Your task to perform on an android device: Check the weather Image 0: 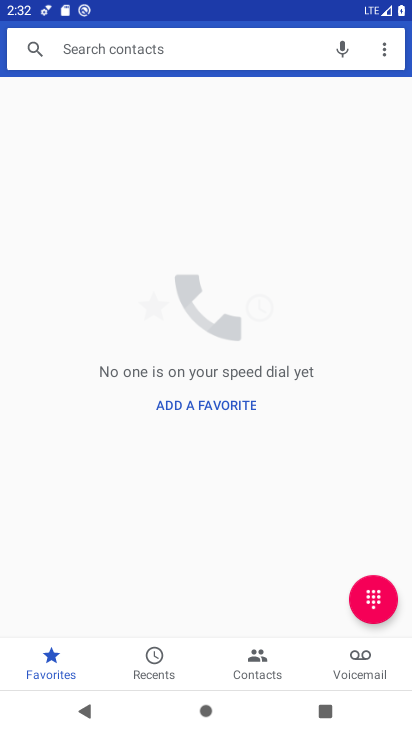
Step 0: press home button
Your task to perform on an android device: Check the weather Image 1: 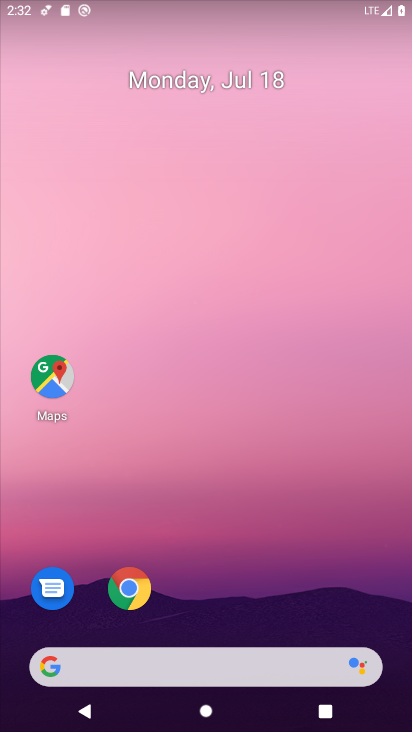
Step 1: click (127, 588)
Your task to perform on an android device: Check the weather Image 2: 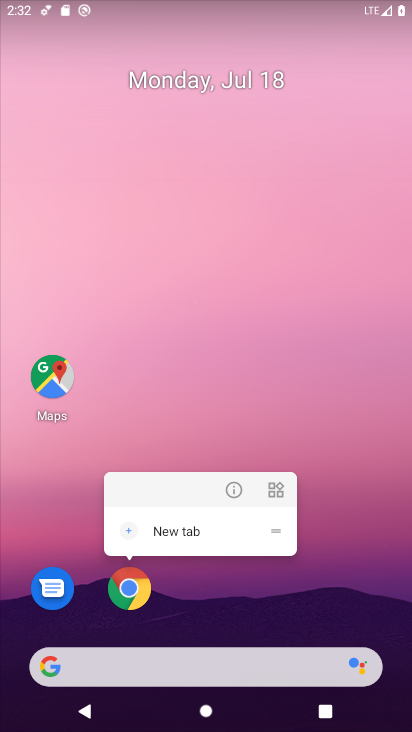
Step 2: click (127, 588)
Your task to perform on an android device: Check the weather Image 3: 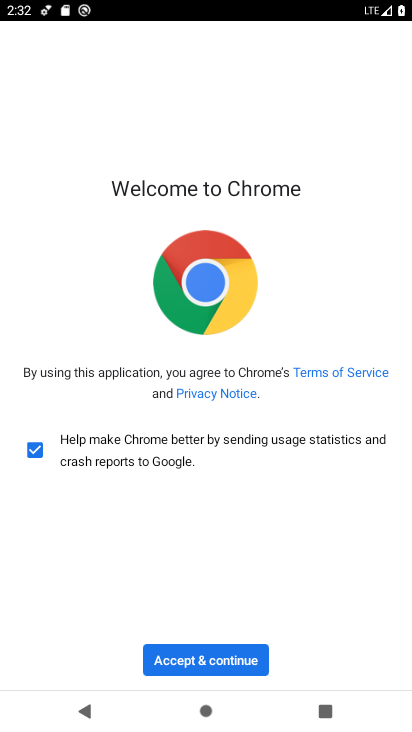
Step 3: click (185, 656)
Your task to perform on an android device: Check the weather Image 4: 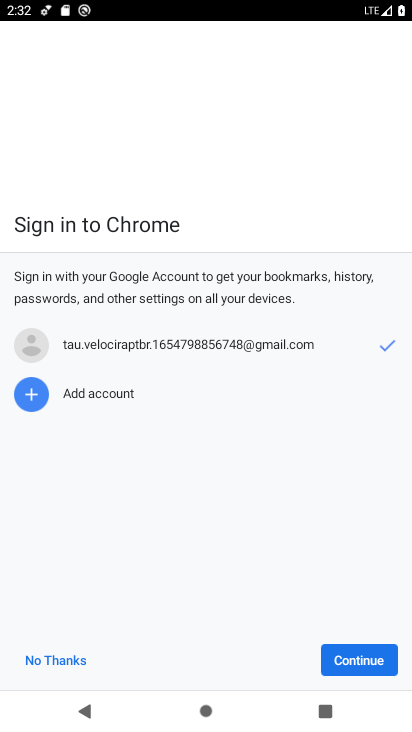
Step 4: click (352, 656)
Your task to perform on an android device: Check the weather Image 5: 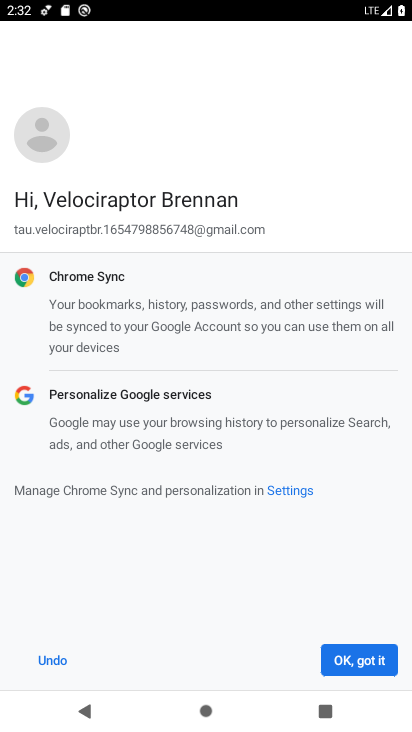
Step 5: click (363, 657)
Your task to perform on an android device: Check the weather Image 6: 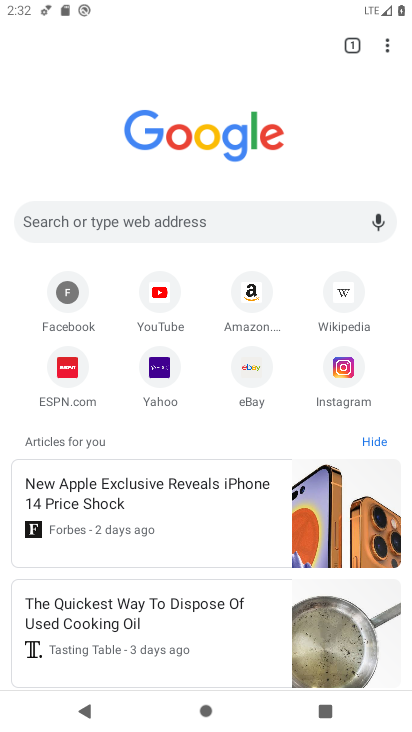
Step 6: click (242, 213)
Your task to perform on an android device: Check the weather Image 7: 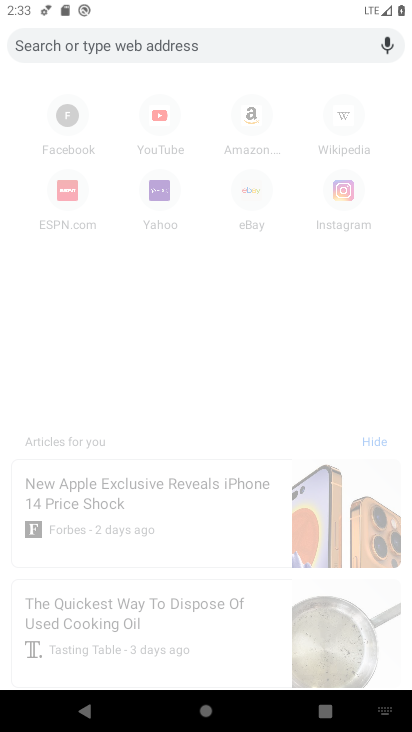
Step 7: type "Check the weather"
Your task to perform on an android device: Check the weather Image 8: 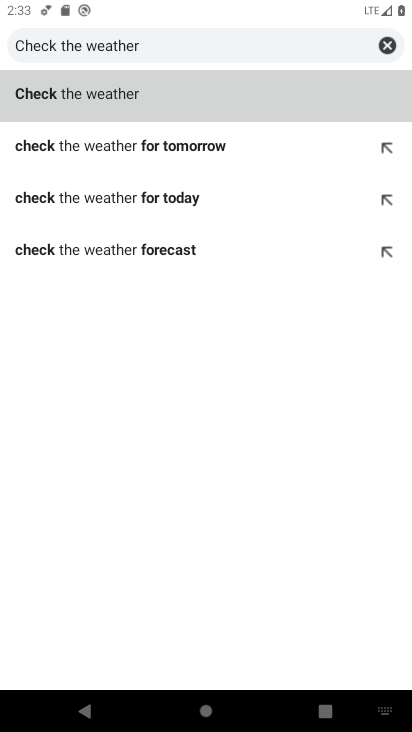
Step 8: click (158, 99)
Your task to perform on an android device: Check the weather Image 9: 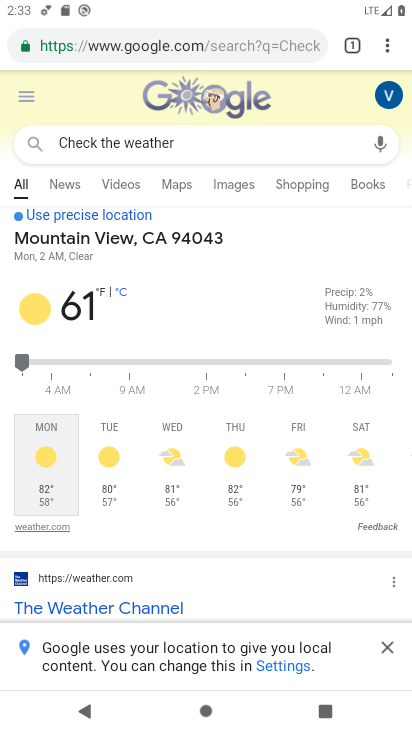
Step 9: task complete